Your task to perform on an android device: Open display settings Image 0: 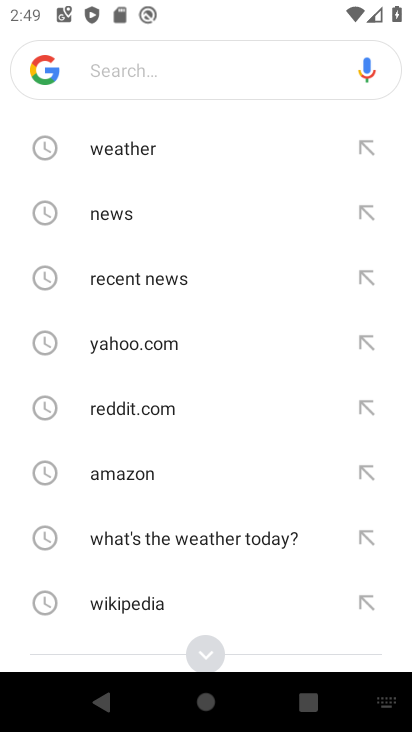
Step 0: press home button
Your task to perform on an android device: Open display settings Image 1: 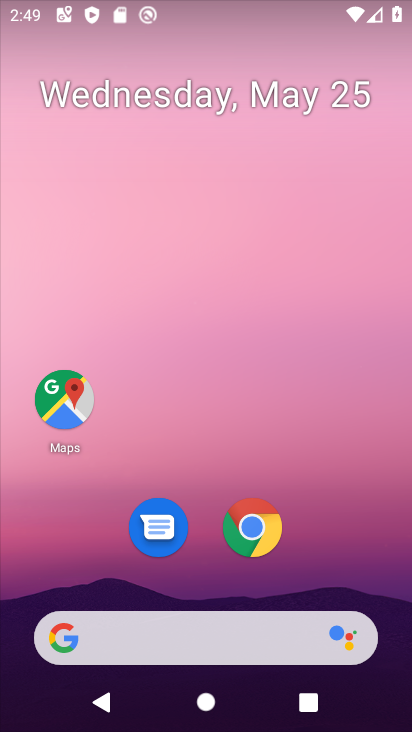
Step 1: drag from (170, 588) to (322, 28)
Your task to perform on an android device: Open display settings Image 2: 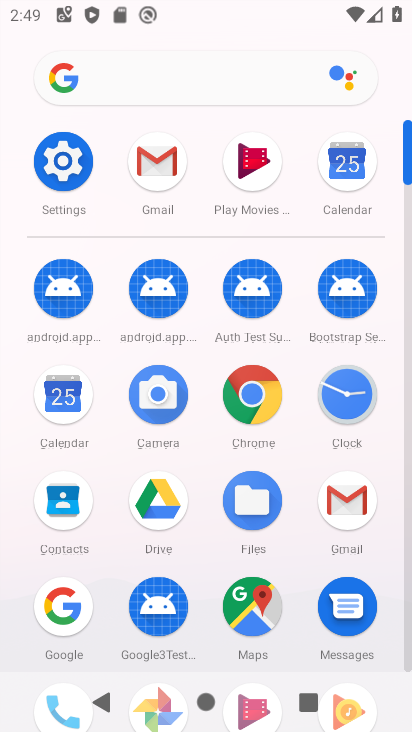
Step 2: click (54, 170)
Your task to perform on an android device: Open display settings Image 3: 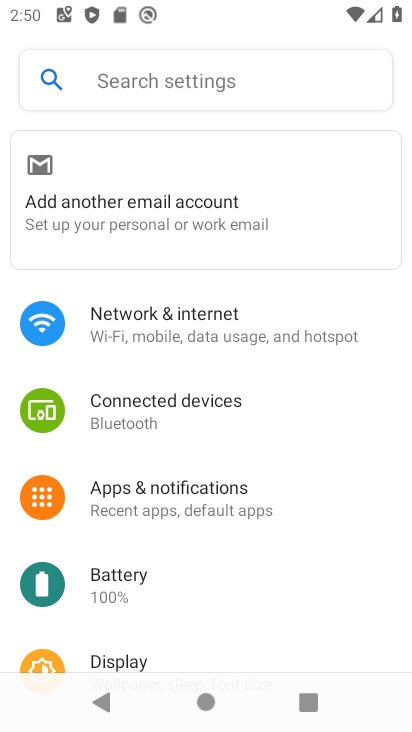
Step 3: click (116, 665)
Your task to perform on an android device: Open display settings Image 4: 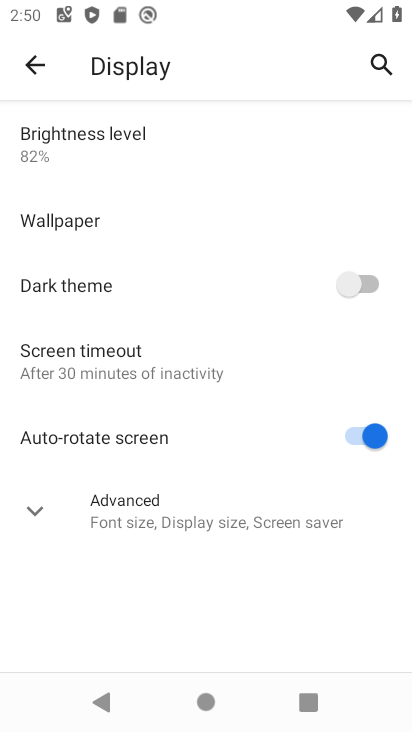
Step 4: task complete